Your task to perform on an android device: set the stopwatch Image 0: 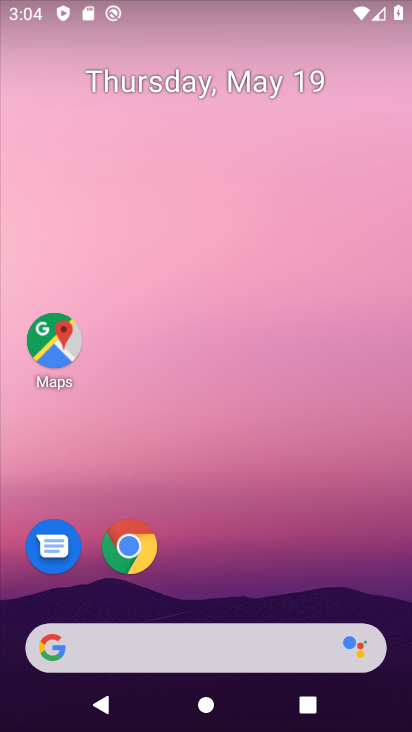
Step 0: drag from (214, 599) to (213, 62)
Your task to perform on an android device: set the stopwatch Image 1: 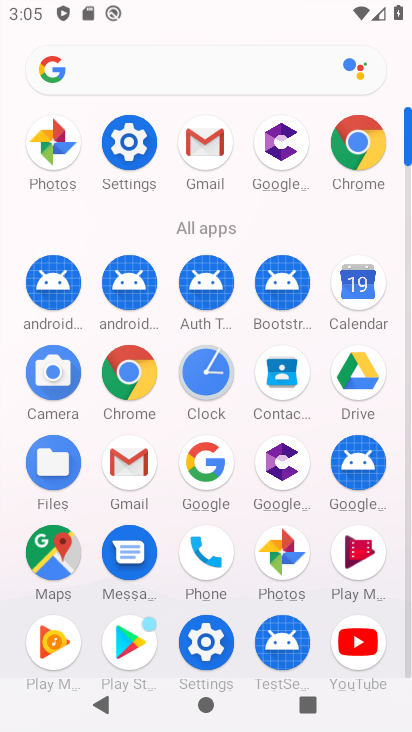
Step 1: click (206, 399)
Your task to perform on an android device: set the stopwatch Image 2: 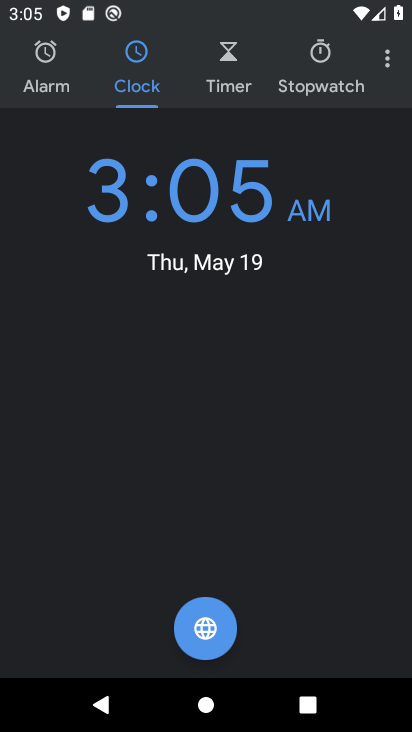
Step 2: click (326, 51)
Your task to perform on an android device: set the stopwatch Image 3: 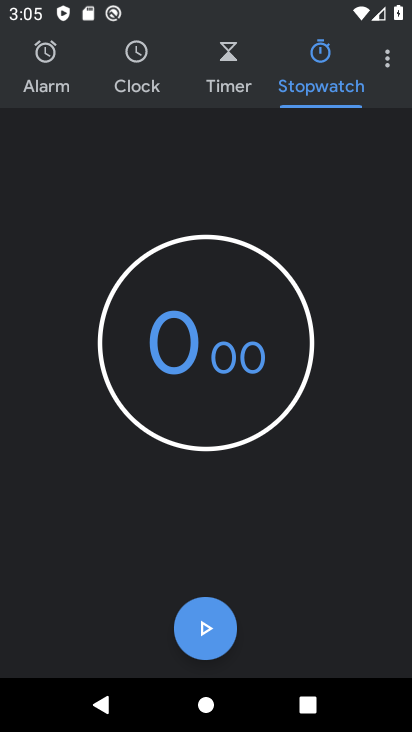
Step 3: click (212, 628)
Your task to perform on an android device: set the stopwatch Image 4: 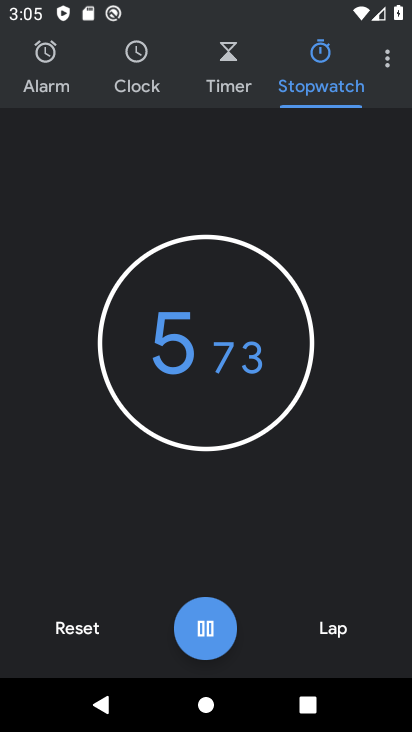
Step 4: task complete